Your task to perform on an android device: turn off data saver in the chrome app Image 0: 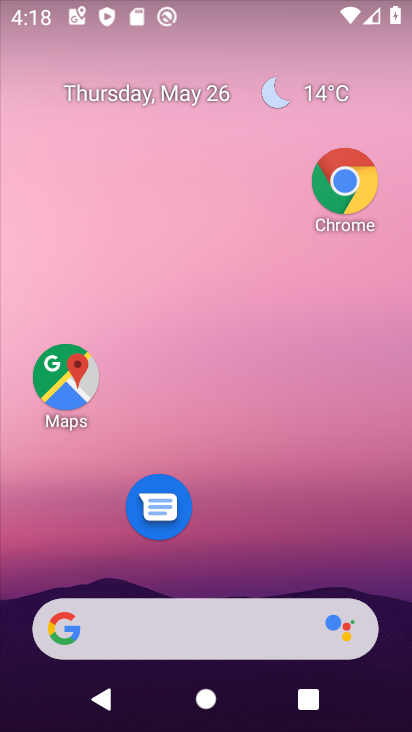
Step 0: drag from (276, 562) to (304, 101)
Your task to perform on an android device: turn off data saver in the chrome app Image 1: 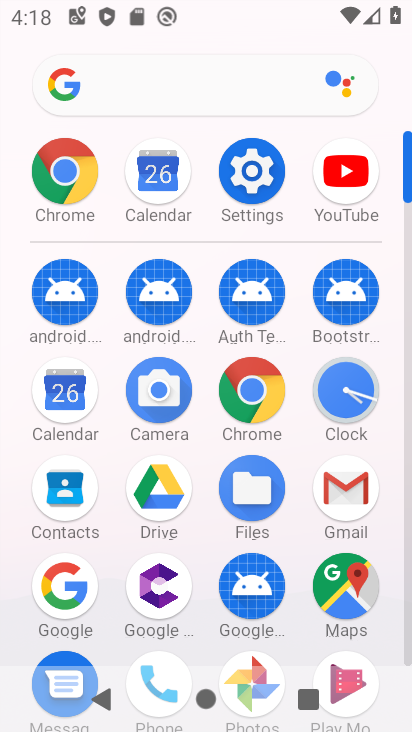
Step 1: click (256, 389)
Your task to perform on an android device: turn off data saver in the chrome app Image 2: 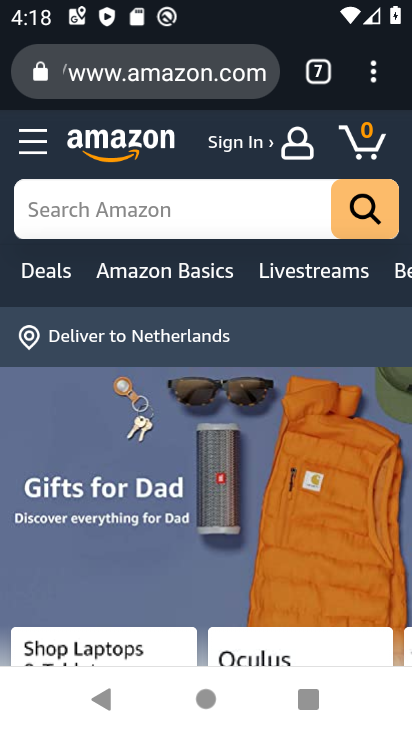
Step 2: drag from (375, 67) to (167, 504)
Your task to perform on an android device: turn off data saver in the chrome app Image 3: 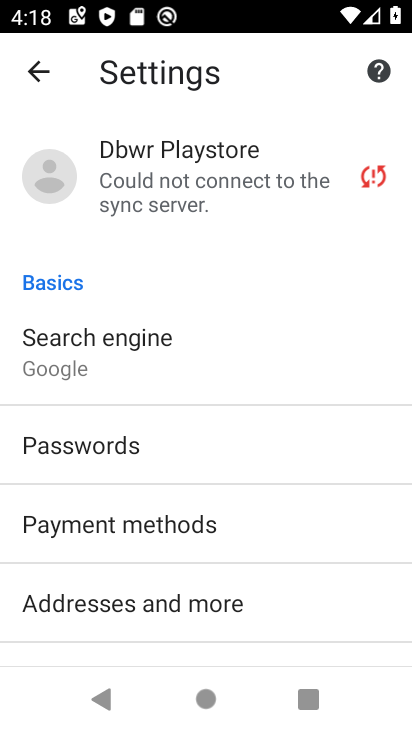
Step 3: drag from (260, 610) to (283, 387)
Your task to perform on an android device: turn off data saver in the chrome app Image 4: 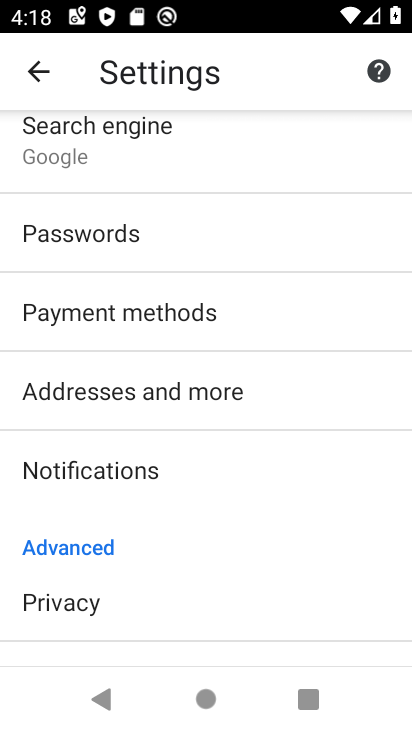
Step 4: drag from (245, 607) to (287, 329)
Your task to perform on an android device: turn off data saver in the chrome app Image 5: 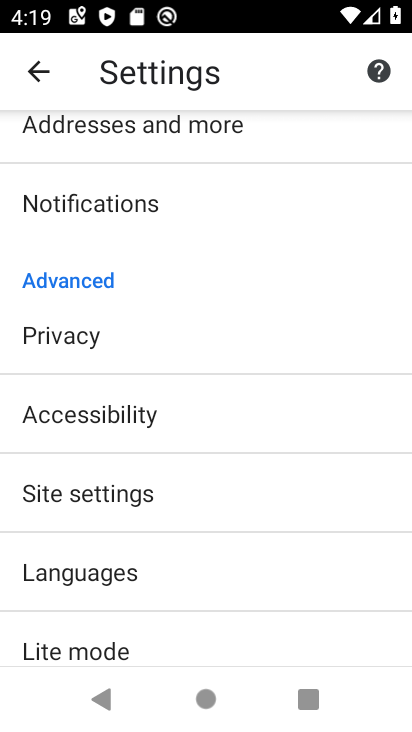
Step 5: drag from (250, 632) to (293, 401)
Your task to perform on an android device: turn off data saver in the chrome app Image 6: 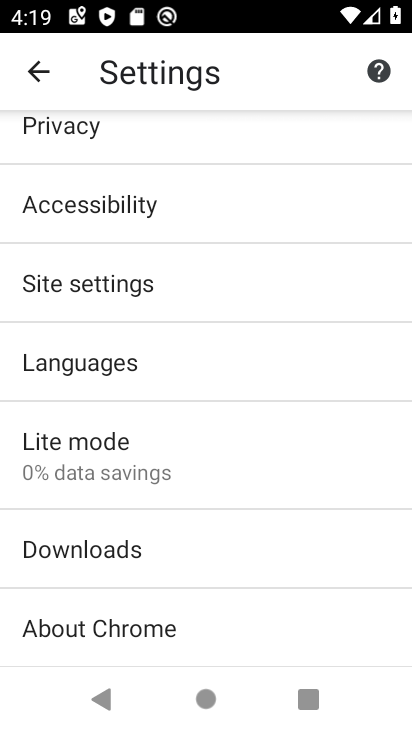
Step 6: click (101, 450)
Your task to perform on an android device: turn off data saver in the chrome app Image 7: 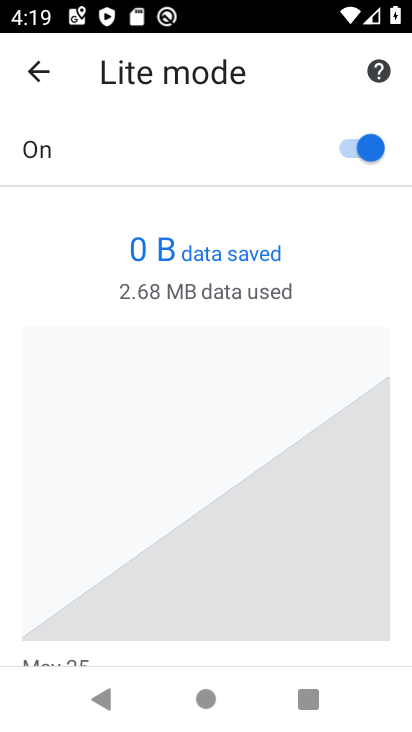
Step 7: click (345, 143)
Your task to perform on an android device: turn off data saver in the chrome app Image 8: 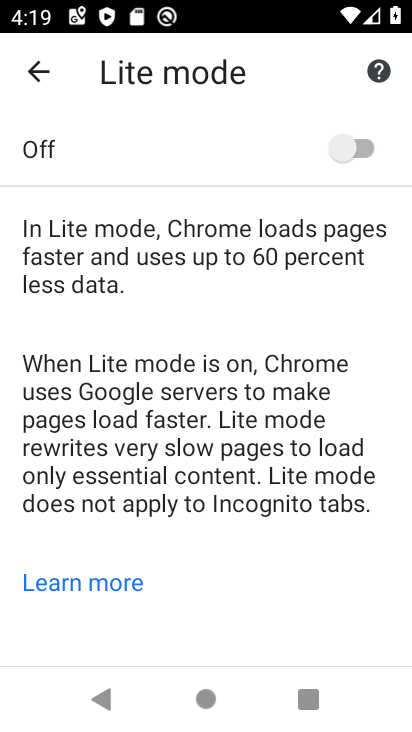
Step 8: task complete